Your task to perform on an android device: open app "Facebook" (install if not already installed) Image 0: 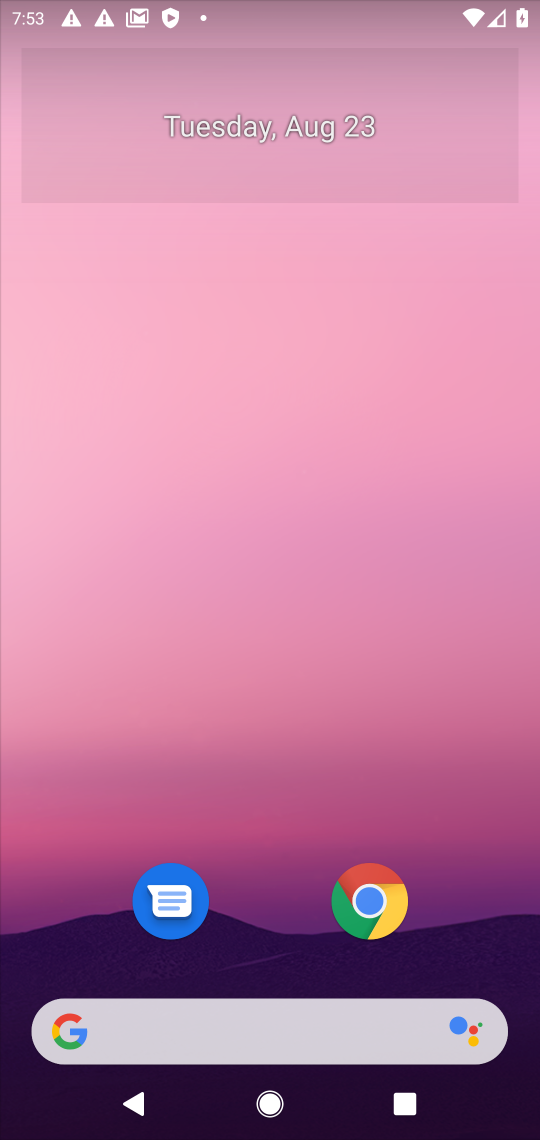
Step 0: drag from (345, 973) to (448, 52)
Your task to perform on an android device: open app "Facebook" (install if not already installed) Image 1: 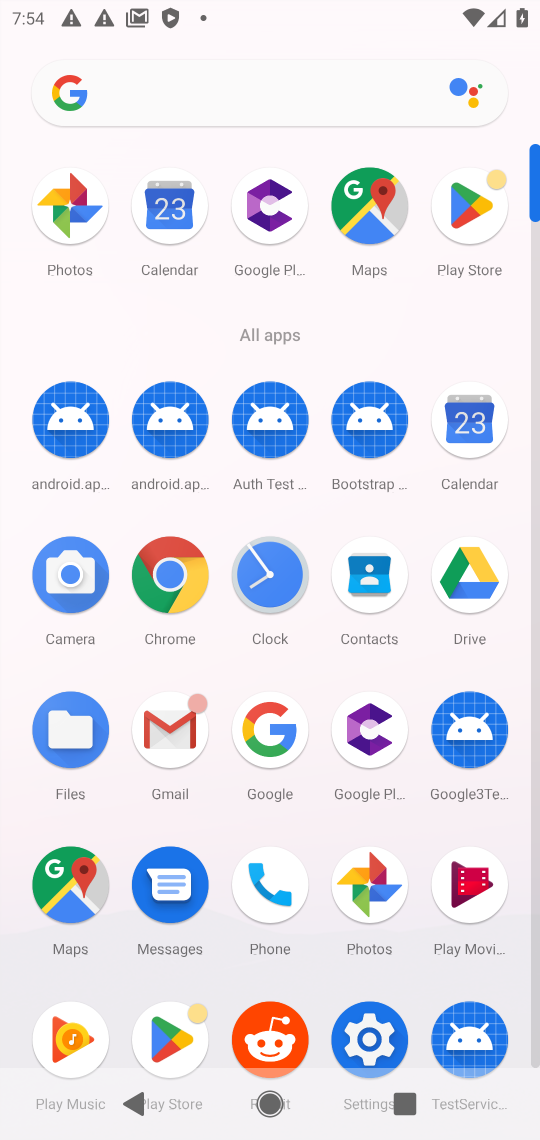
Step 1: drag from (425, 917) to (365, 219)
Your task to perform on an android device: open app "Facebook" (install if not already installed) Image 2: 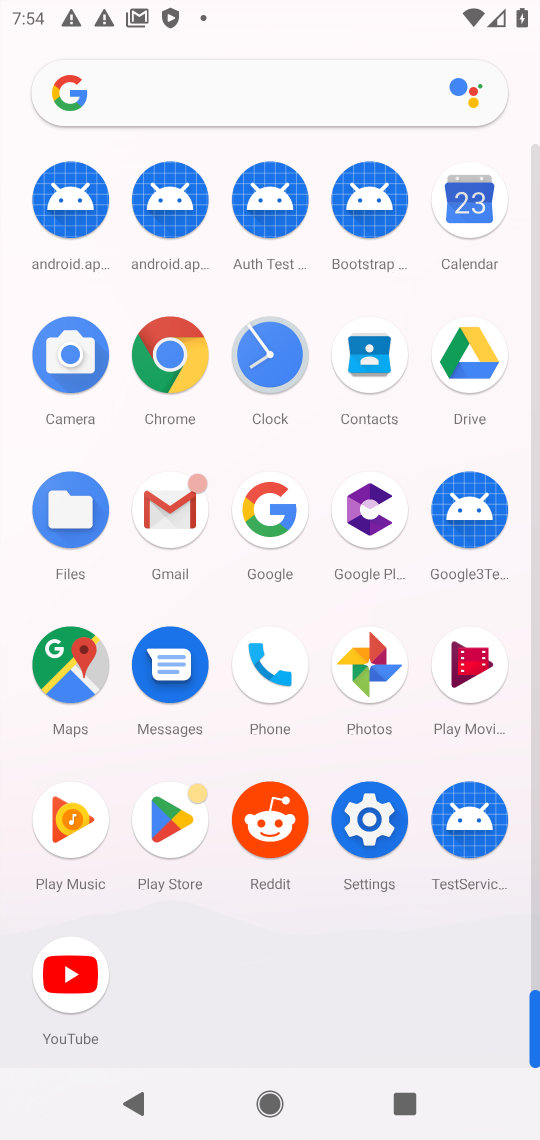
Step 2: drag from (363, 536) to (475, 1029)
Your task to perform on an android device: open app "Facebook" (install if not already installed) Image 3: 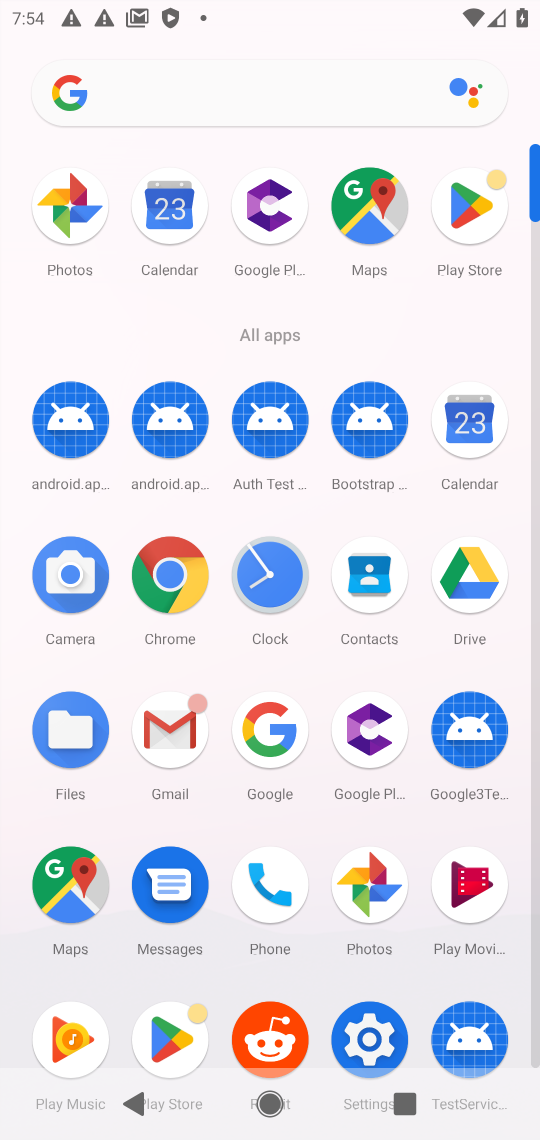
Step 3: click (457, 216)
Your task to perform on an android device: open app "Facebook" (install if not already installed) Image 4: 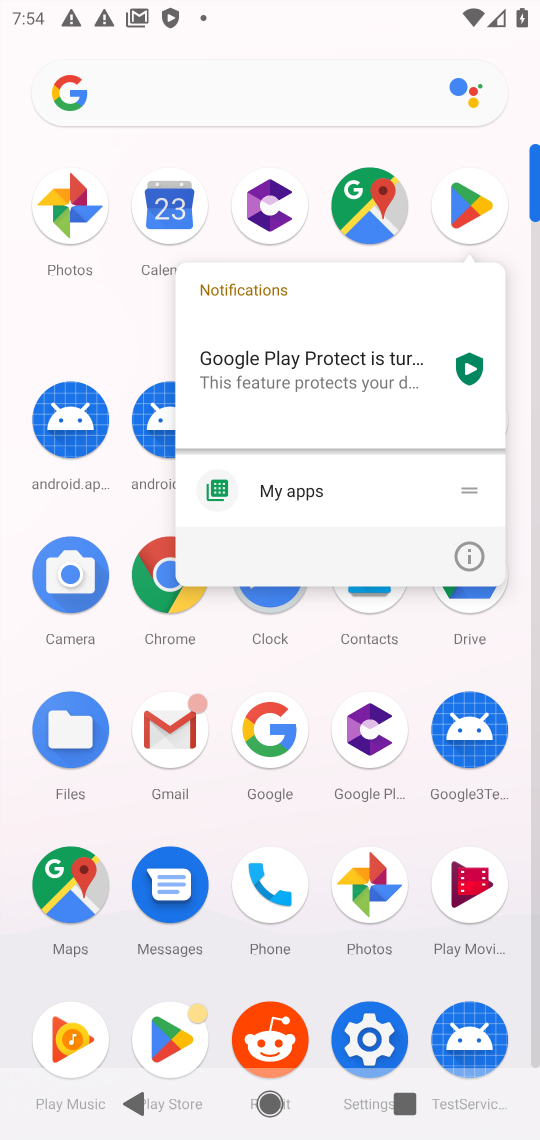
Step 4: click (457, 214)
Your task to perform on an android device: open app "Facebook" (install if not already installed) Image 5: 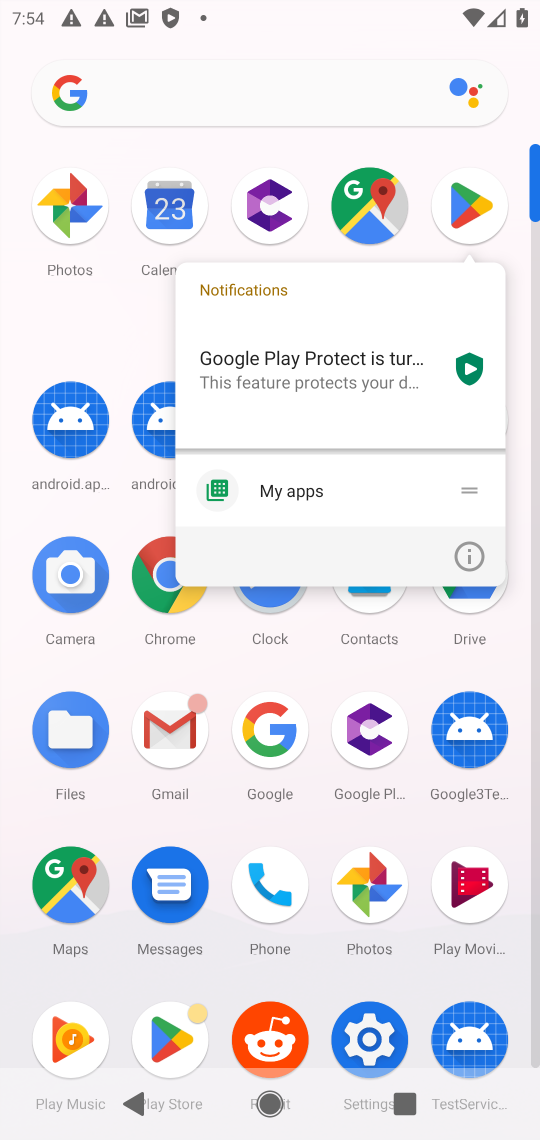
Step 5: click (457, 210)
Your task to perform on an android device: open app "Facebook" (install if not already installed) Image 6: 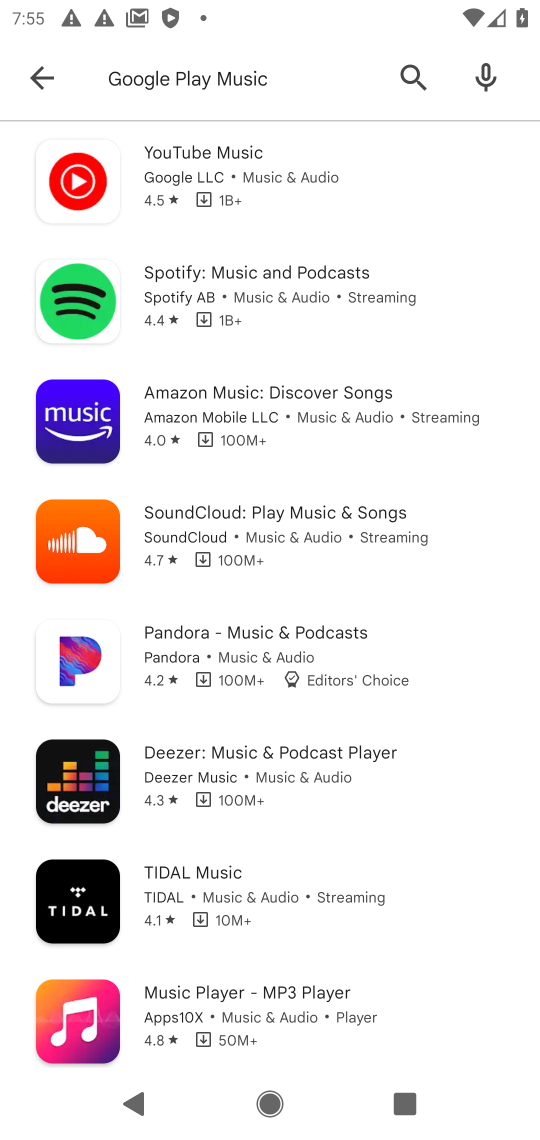
Step 6: press back button
Your task to perform on an android device: open app "Facebook" (install if not already installed) Image 7: 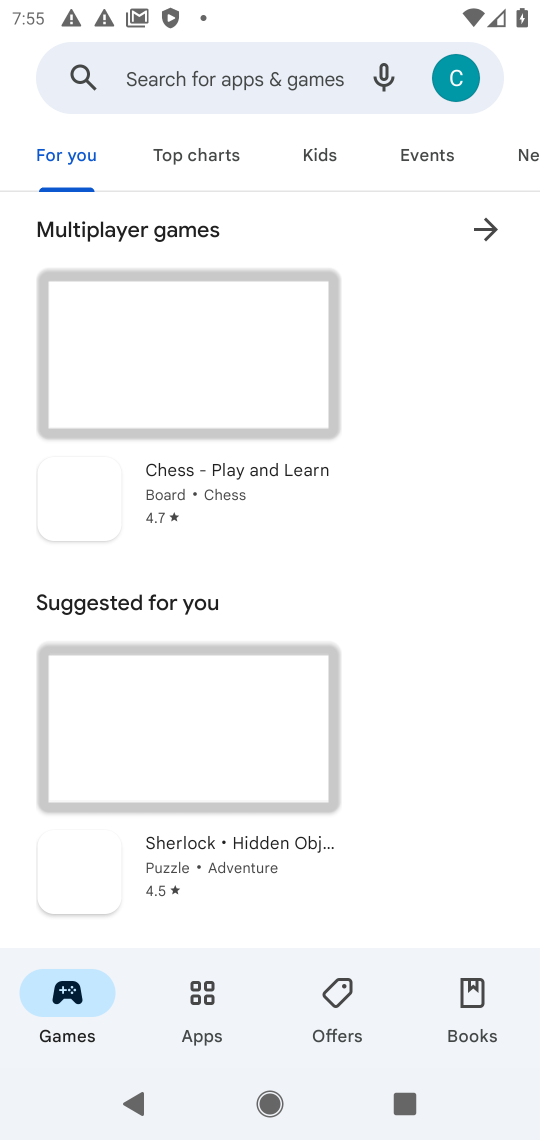
Step 7: click (217, 45)
Your task to perform on an android device: open app "Facebook" (install if not already installed) Image 8: 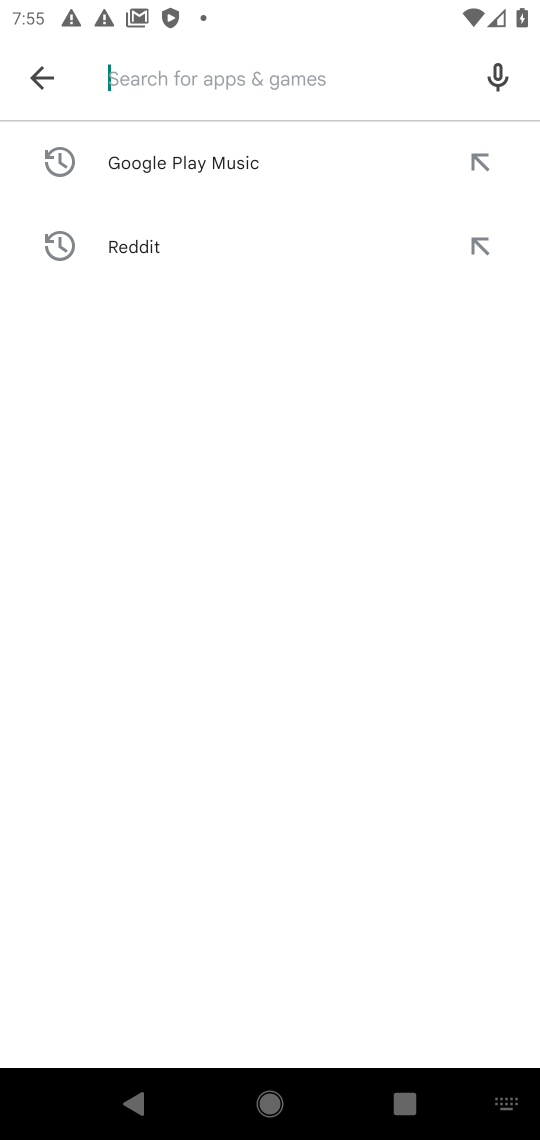
Step 8: type "Facebook"
Your task to perform on an android device: open app "Facebook" (install if not already installed) Image 9: 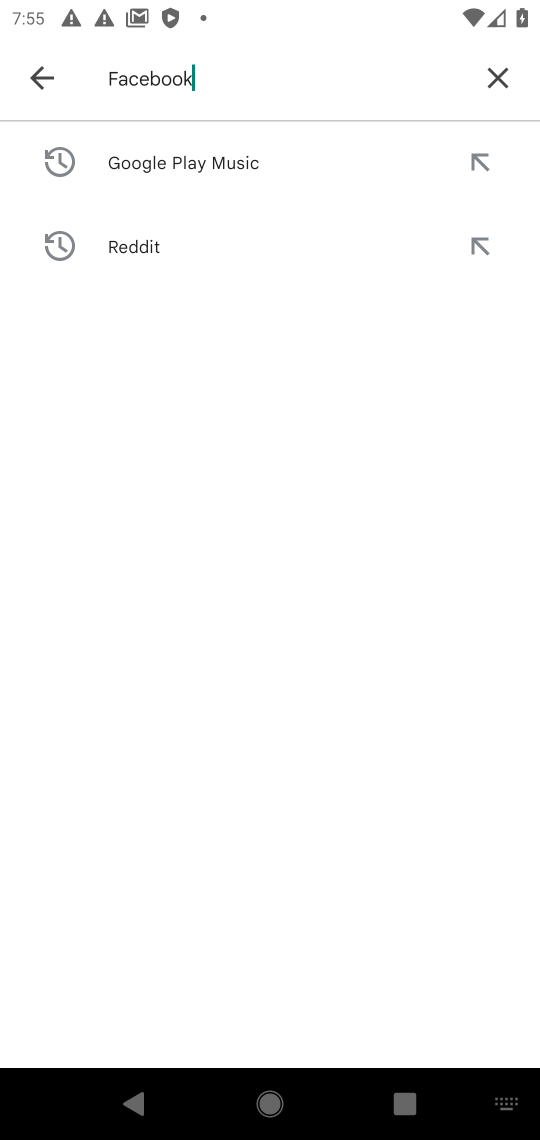
Step 9: press enter
Your task to perform on an android device: open app "Facebook" (install if not already installed) Image 10: 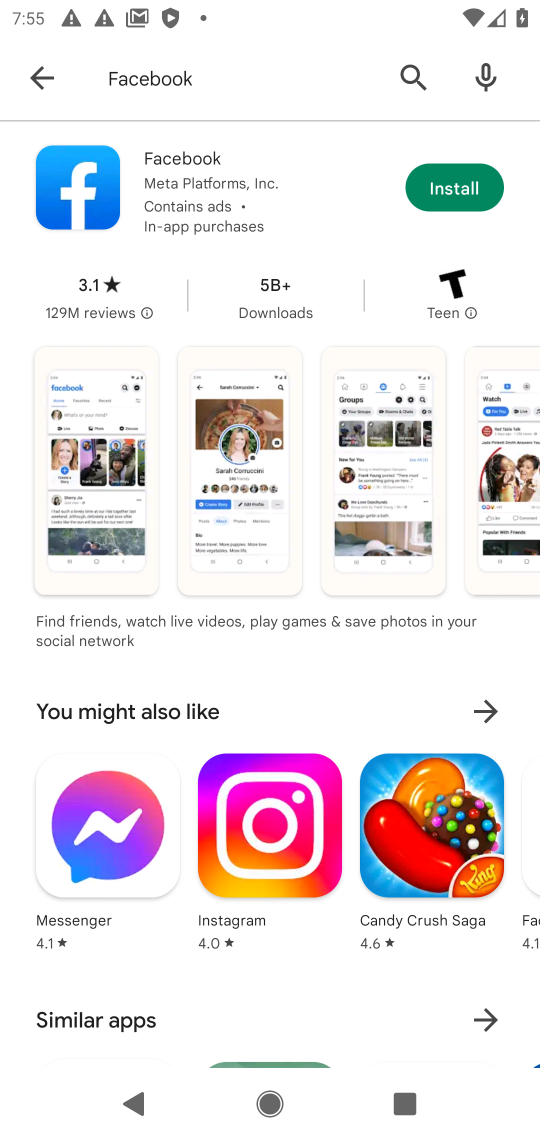
Step 10: click (465, 201)
Your task to perform on an android device: open app "Facebook" (install if not already installed) Image 11: 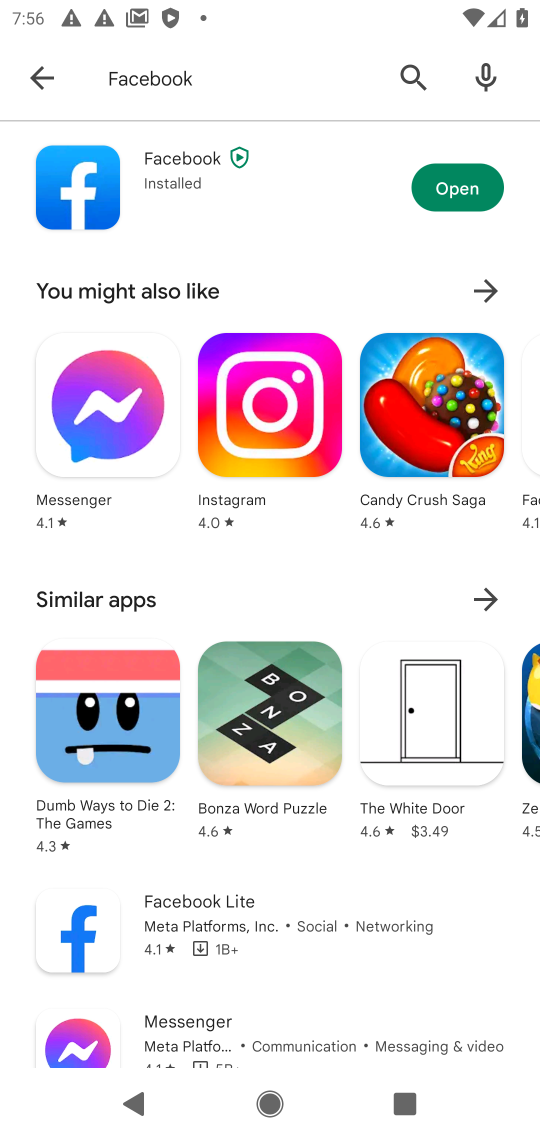
Step 11: click (472, 180)
Your task to perform on an android device: open app "Facebook" (install if not already installed) Image 12: 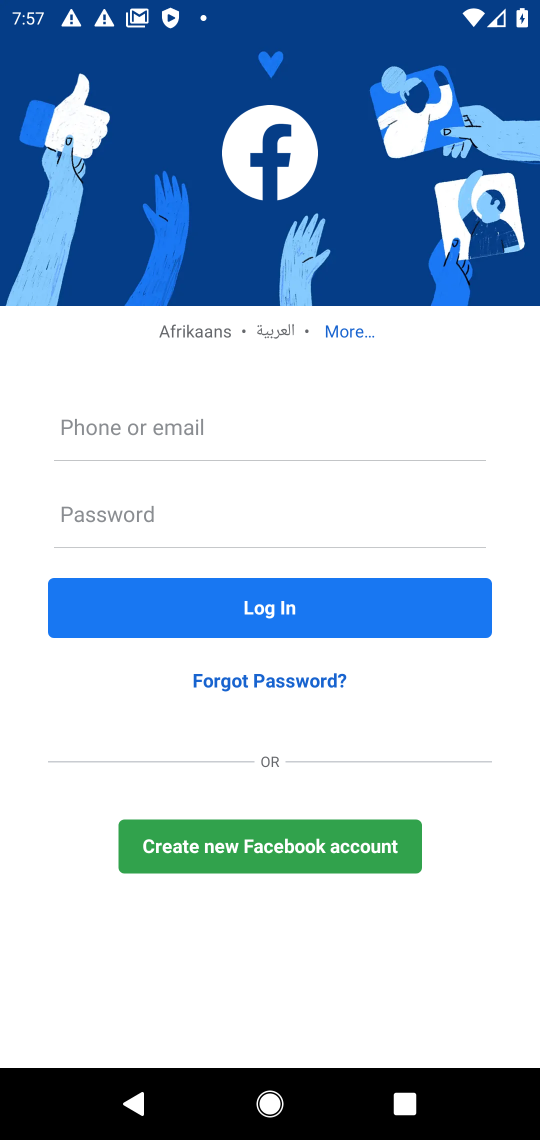
Step 12: task complete